Your task to perform on an android device: Go to network settings Image 0: 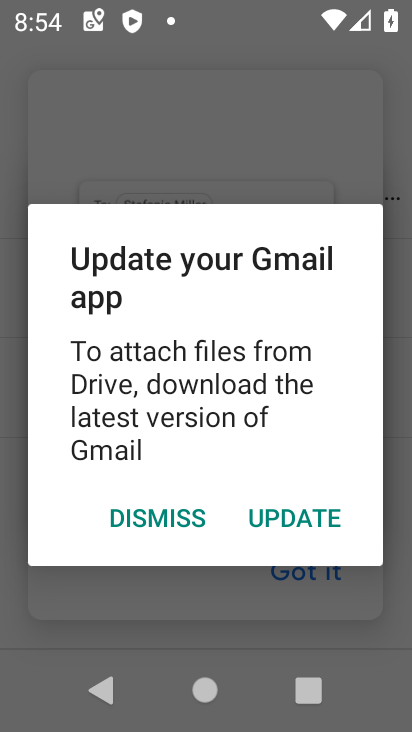
Step 0: click (312, 578)
Your task to perform on an android device: Go to network settings Image 1: 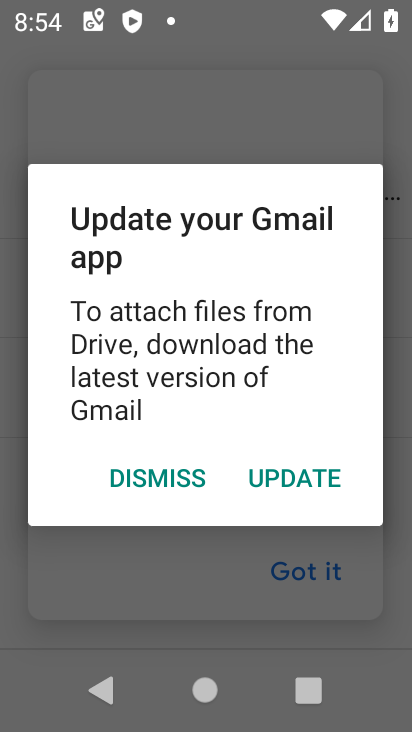
Step 1: press home button
Your task to perform on an android device: Go to network settings Image 2: 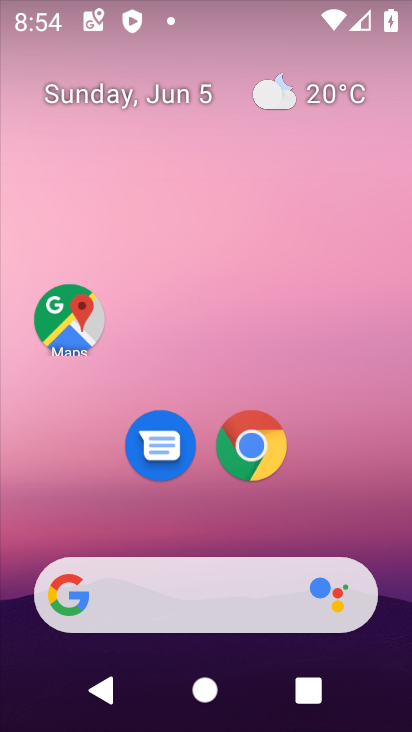
Step 2: drag from (313, 553) to (359, 0)
Your task to perform on an android device: Go to network settings Image 3: 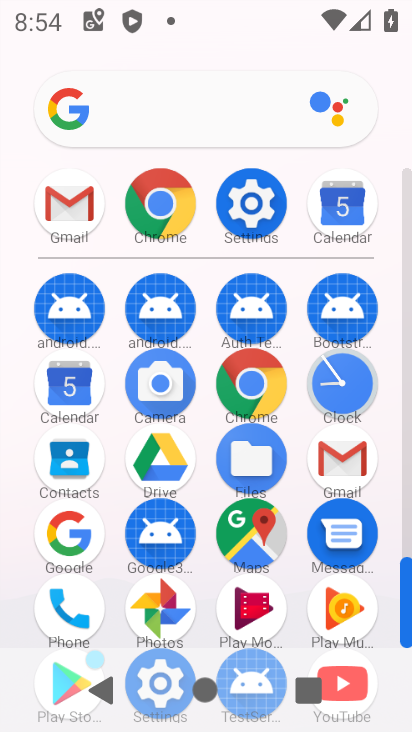
Step 3: click (248, 178)
Your task to perform on an android device: Go to network settings Image 4: 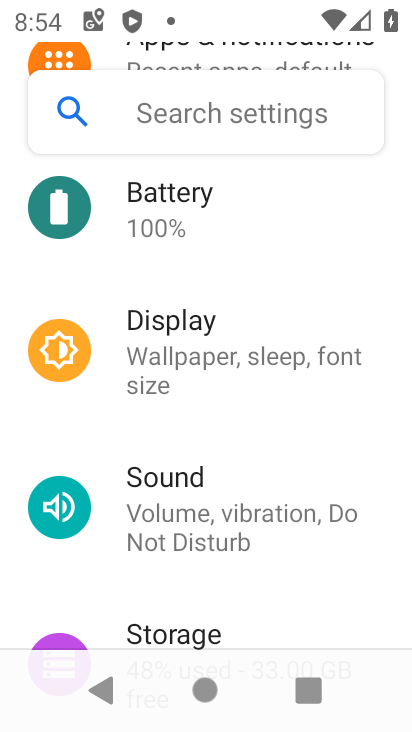
Step 4: drag from (223, 222) to (285, 106)
Your task to perform on an android device: Go to network settings Image 5: 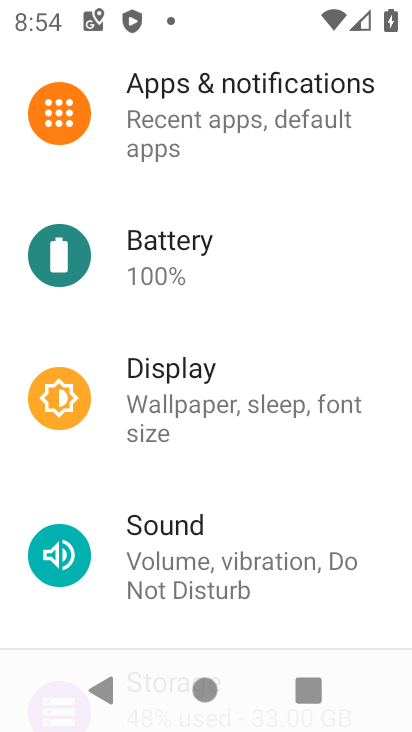
Step 5: drag from (255, 518) to (311, 2)
Your task to perform on an android device: Go to network settings Image 6: 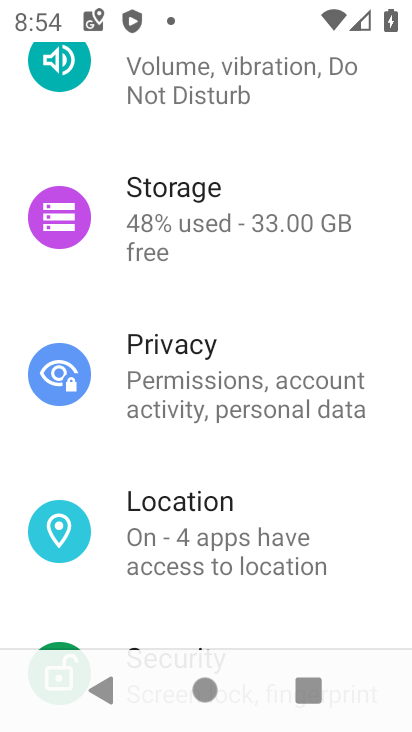
Step 6: drag from (263, 457) to (274, 684)
Your task to perform on an android device: Go to network settings Image 7: 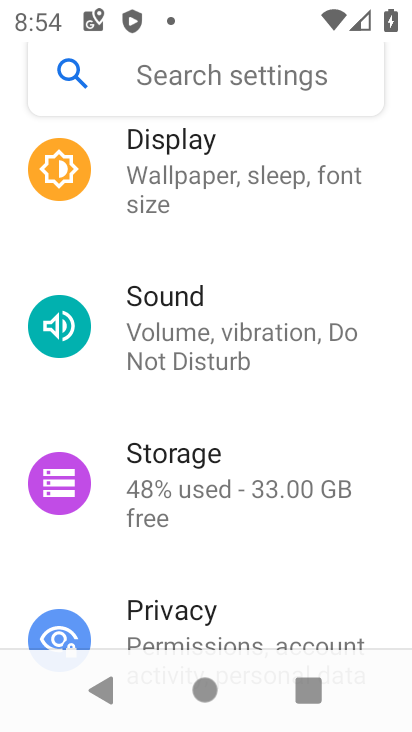
Step 7: drag from (177, 156) to (199, 558)
Your task to perform on an android device: Go to network settings Image 8: 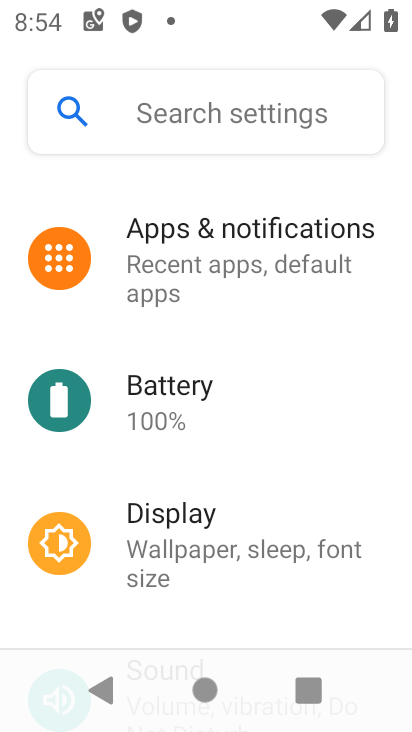
Step 8: drag from (230, 292) to (216, 586)
Your task to perform on an android device: Go to network settings Image 9: 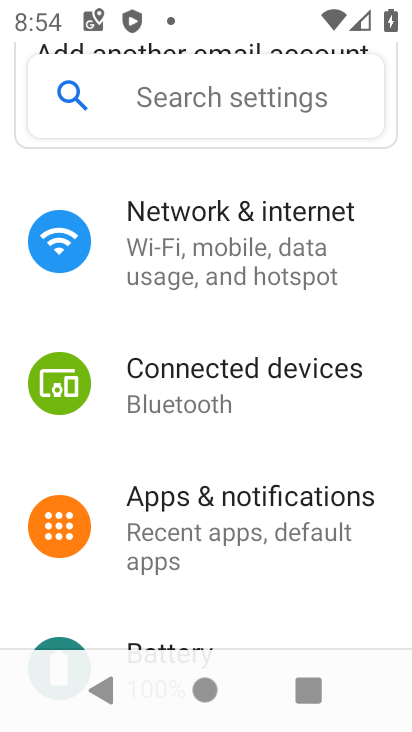
Step 9: drag from (242, 261) to (240, 641)
Your task to perform on an android device: Go to network settings Image 10: 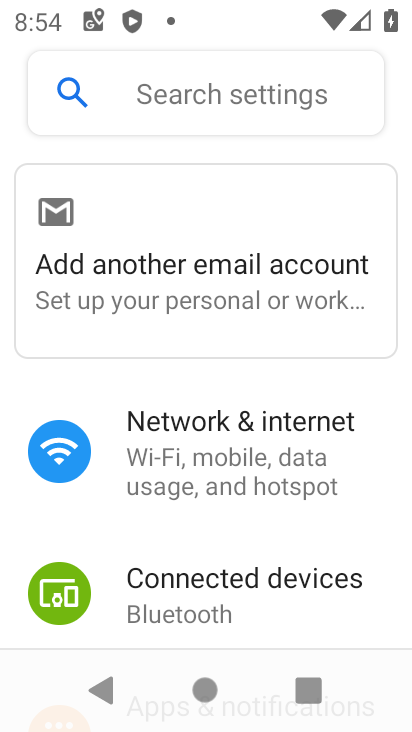
Step 10: click (246, 458)
Your task to perform on an android device: Go to network settings Image 11: 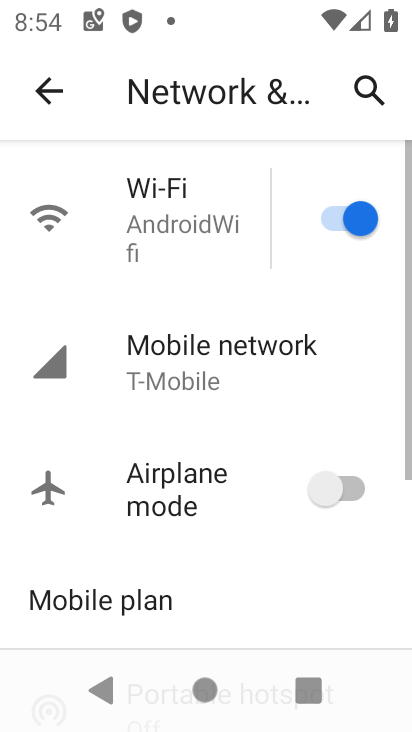
Step 11: task complete